Your task to perform on an android device: open a new tab in the chrome app Image 0: 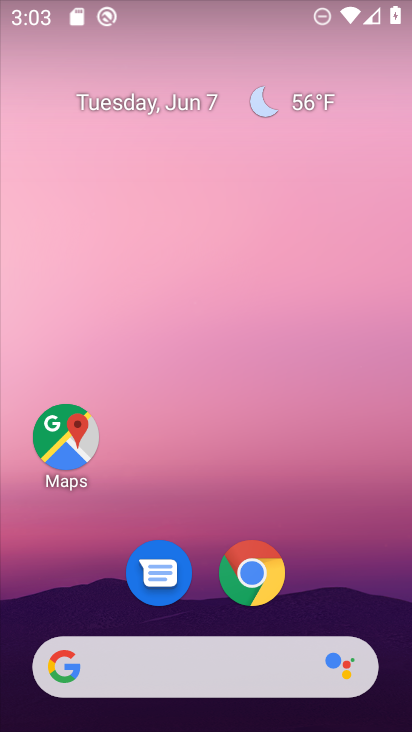
Step 0: click (238, 573)
Your task to perform on an android device: open a new tab in the chrome app Image 1: 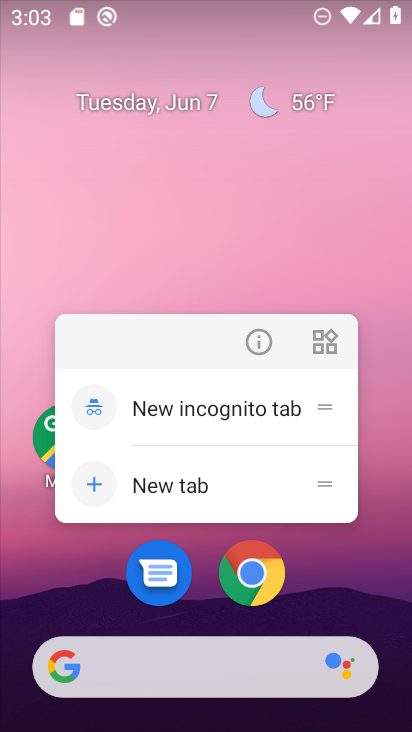
Step 1: click (238, 573)
Your task to perform on an android device: open a new tab in the chrome app Image 2: 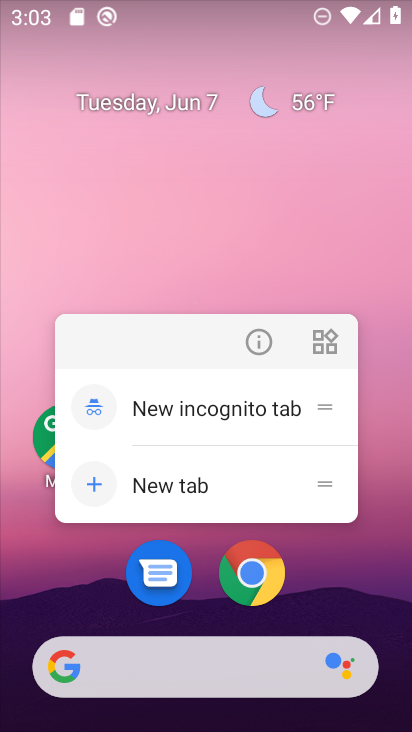
Step 2: click (268, 555)
Your task to perform on an android device: open a new tab in the chrome app Image 3: 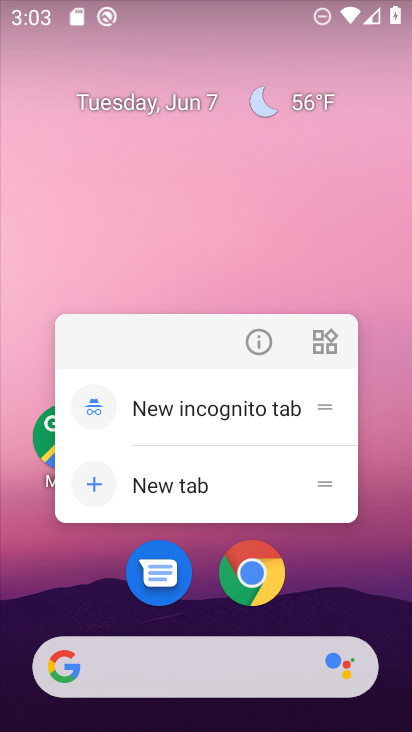
Step 3: click (268, 555)
Your task to perform on an android device: open a new tab in the chrome app Image 4: 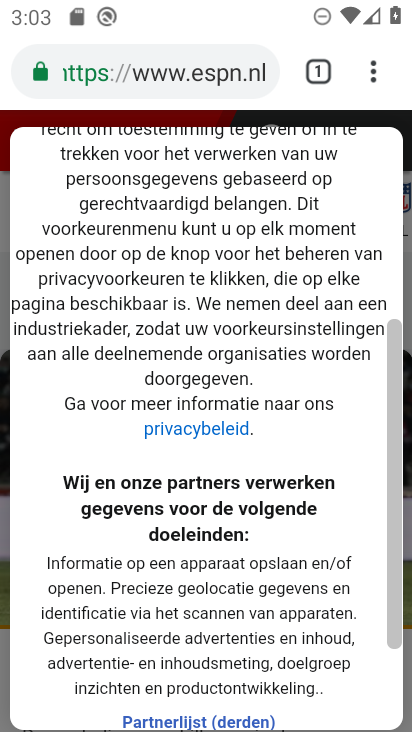
Step 4: click (362, 127)
Your task to perform on an android device: open a new tab in the chrome app Image 5: 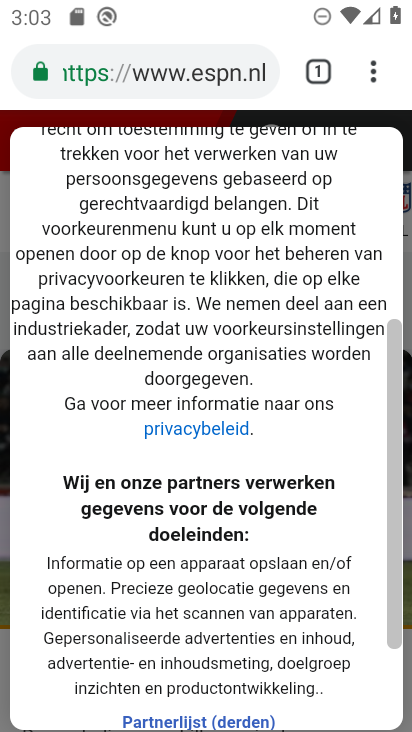
Step 5: click (374, 83)
Your task to perform on an android device: open a new tab in the chrome app Image 6: 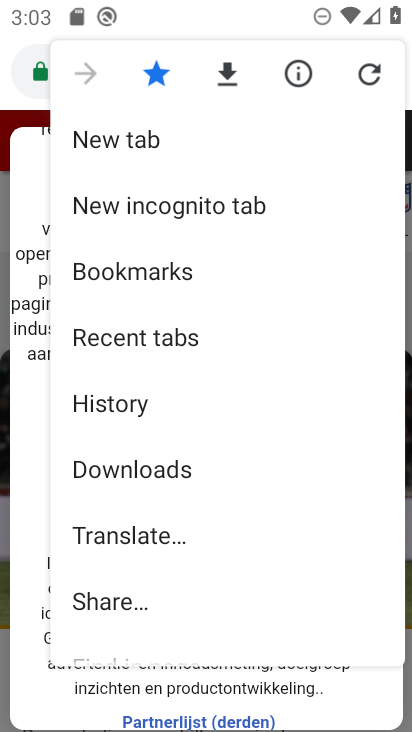
Step 6: click (134, 140)
Your task to perform on an android device: open a new tab in the chrome app Image 7: 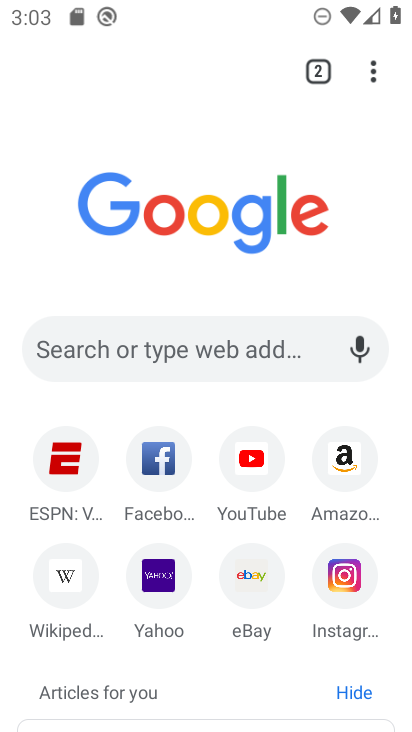
Step 7: task complete